Your task to perform on an android device: change text size in settings app Image 0: 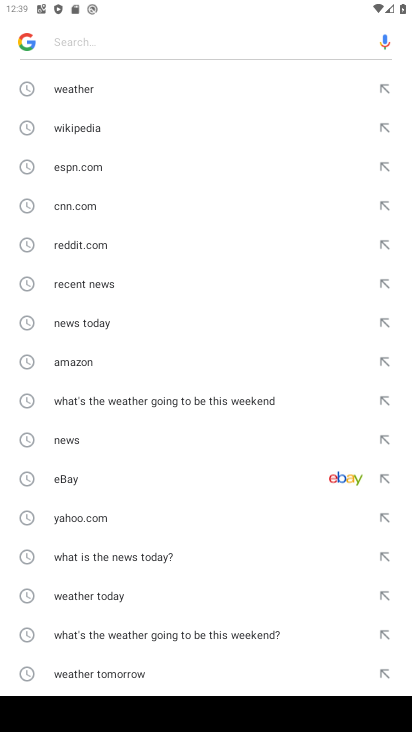
Step 0: press home button
Your task to perform on an android device: change text size in settings app Image 1: 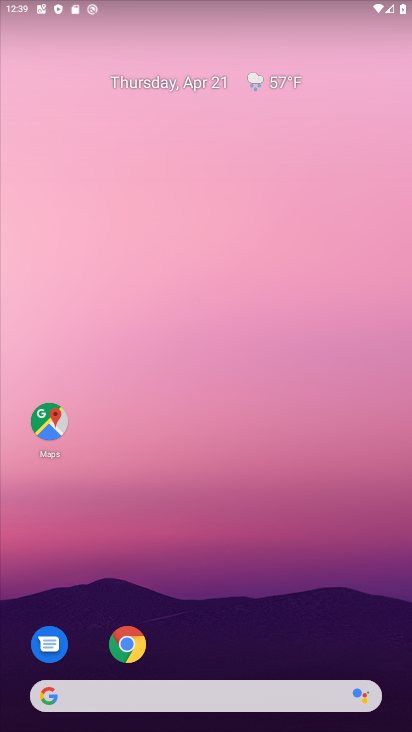
Step 1: drag from (191, 668) to (141, 44)
Your task to perform on an android device: change text size in settings app Image 2: 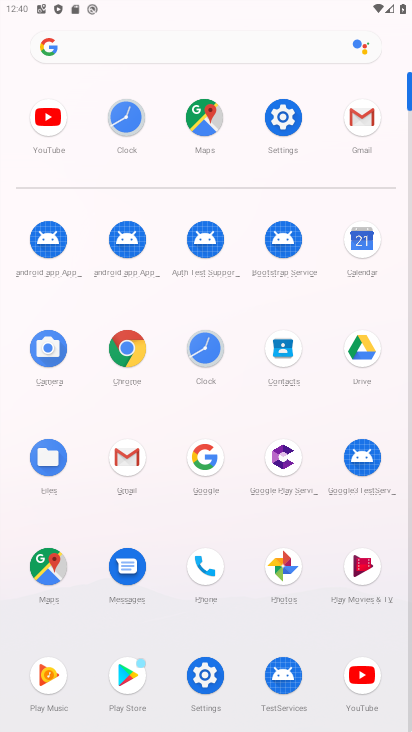
Step 2: click (204, 673)
Your task to perform on an android device: change text size in settings app Image 3: 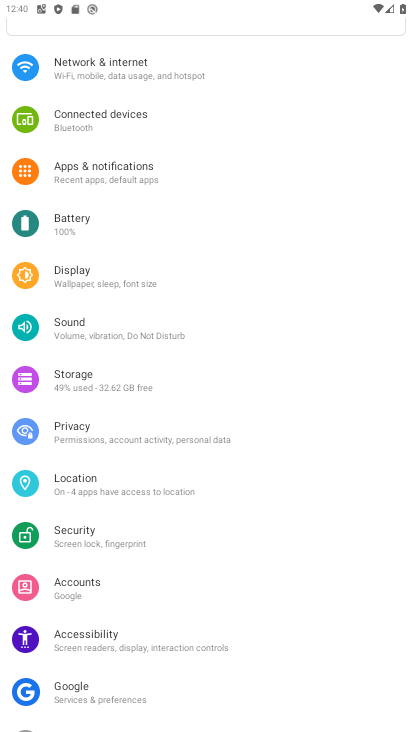
Step 3: drag from (204, 673) to (205, 492)
Your task to perform on an android device: change text size in settings app Image 4: 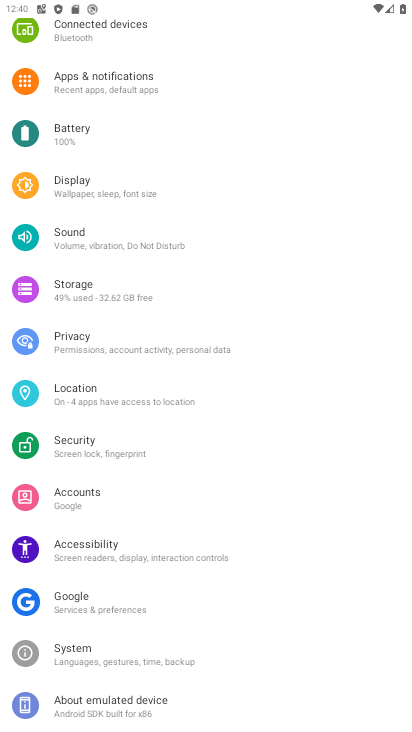
Step 4: click (68, 183)
Your task to perform on an android device: change text size in settings app Image 5: 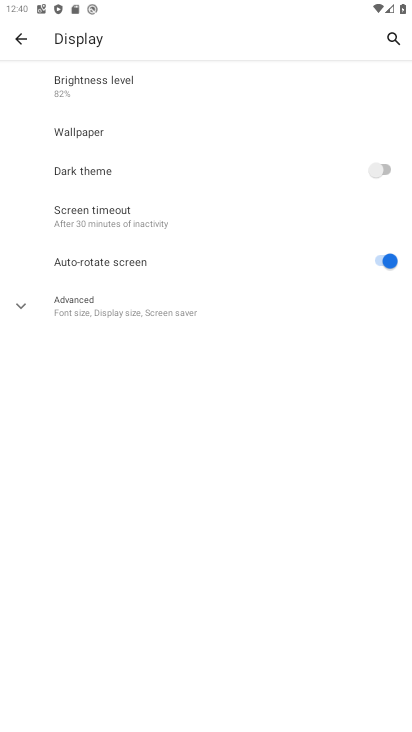
Step 5: click (96, 293)
Your task to perform on an android device: change text size in settings app Image 6: 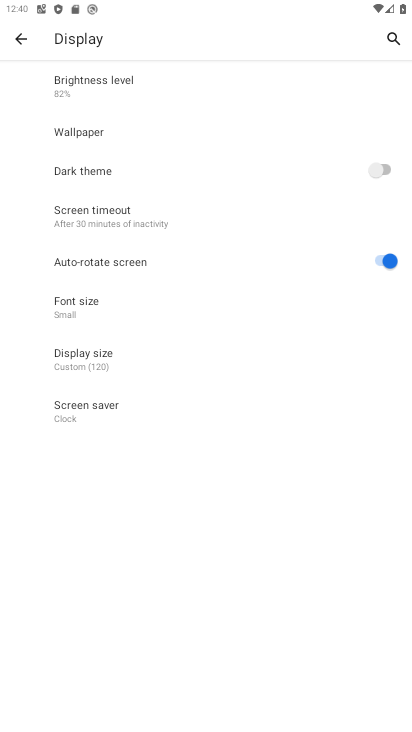
Step 6: click (102, 314)
Your task to perform on an android device: change text size in settings app Image 7: 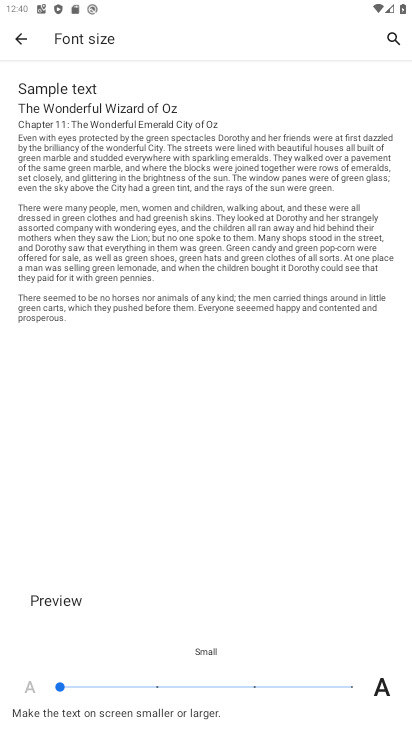
Step 7: click (345, 686)
Your task to perform on an android device: change text size in settings app Image 8: 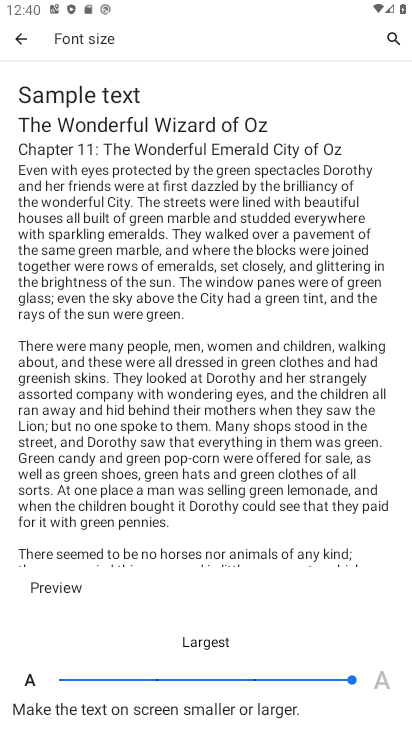
Step 8: task complete